Your task to perform on an android device: turn vacation reply on in the gmail app Image 0: 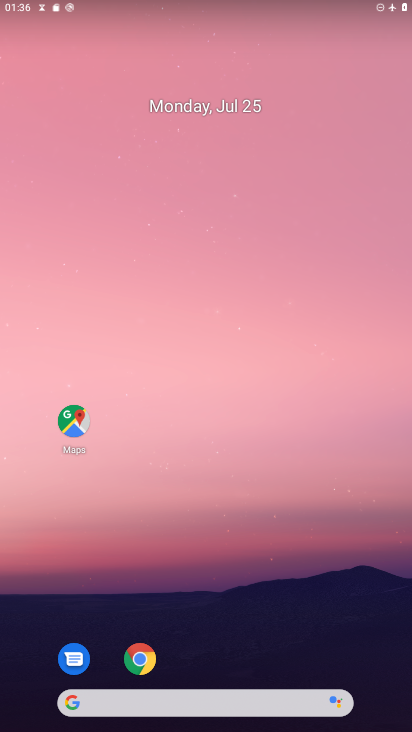
Step 0: drag from (224, 627) to (221, 45)
Your task to perform on an android device: turn vacation reply on in the gmail app Image 1: 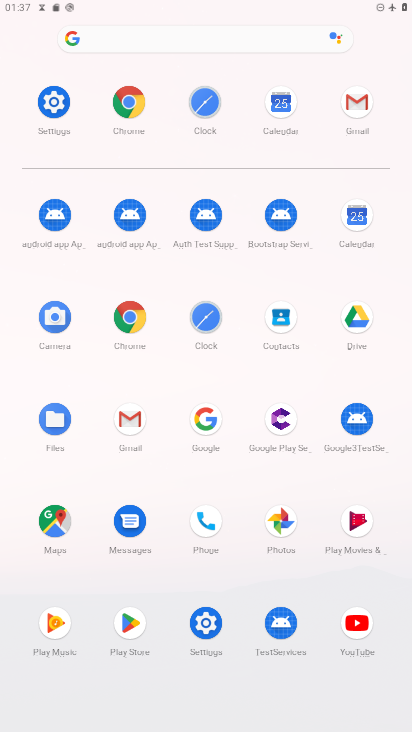
Step 1: click (359, 95)
Your task to perform on an android device: turn vacation reply on in the gmail app Image 2: 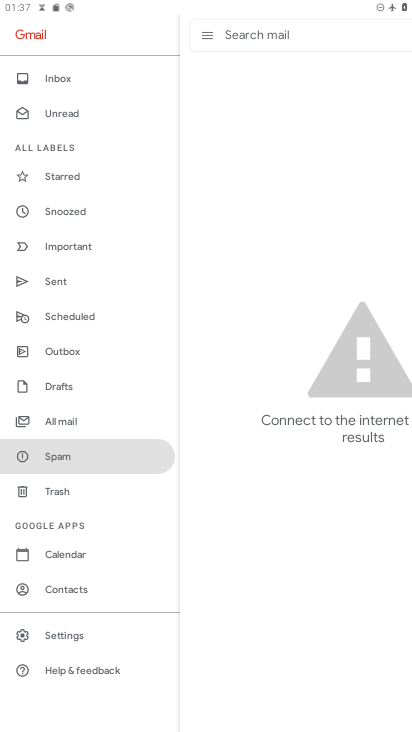
Step 2: click (68, 628)
Your task to perform on an android device: turn vacation reply on in the gmail app Image 3: 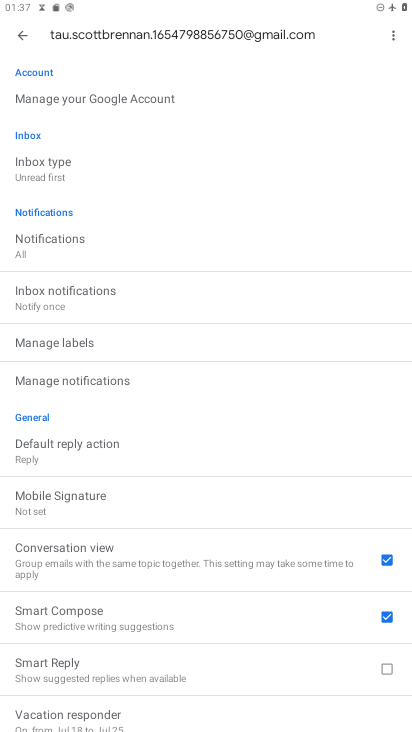
Step 3: click (161, 711)
Your task to perform on an android device: turn vacation reply on in the gmail app Image 4: 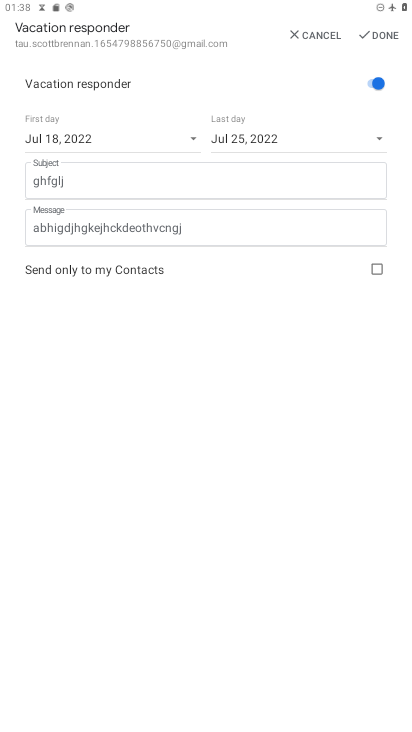
Step 4: task complete